Your task to perform on an android device: Show me productivity apps on the Play Store Image 0: 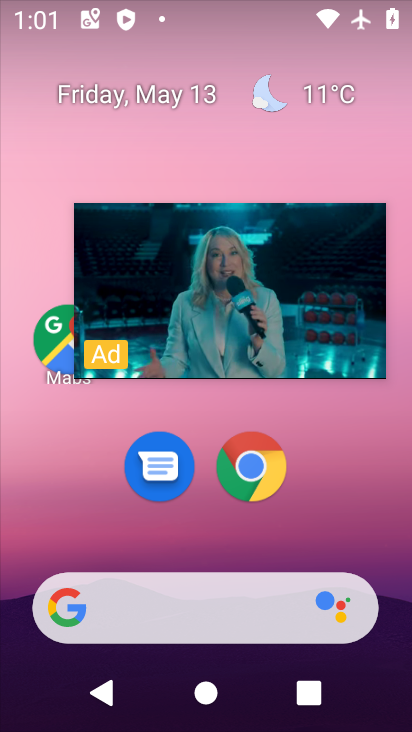
Step 0: drag from (244, 267) to (233, 695)
Your task to perform on an android device: Show me productivity apps on the Play Store Image 1: 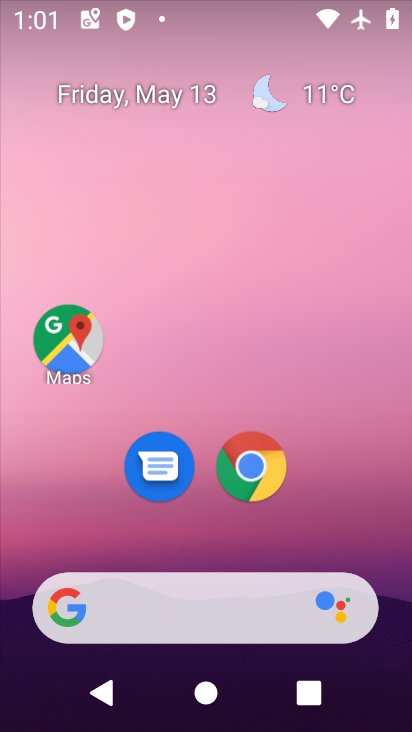
Step 1: drag from (233, 517) to (212, 31)
Your task to perform on an android device: Show me productivity apps on the Play Store Image 2: 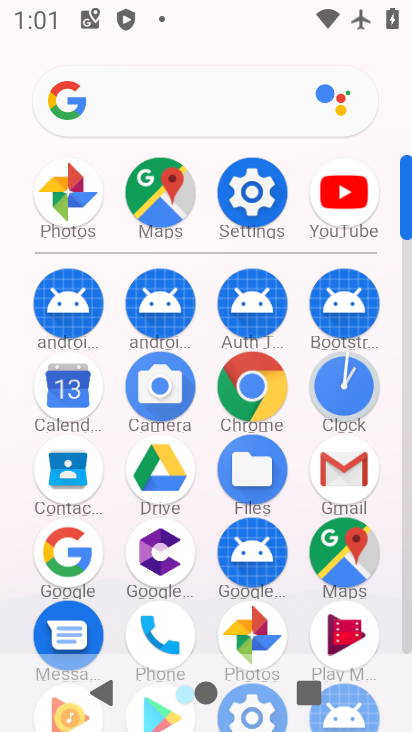
Step 2: drag from (181, 527) to (209, 187)
Your task to perform on an android device: Show me productivity apps on the Play Store Image 3: 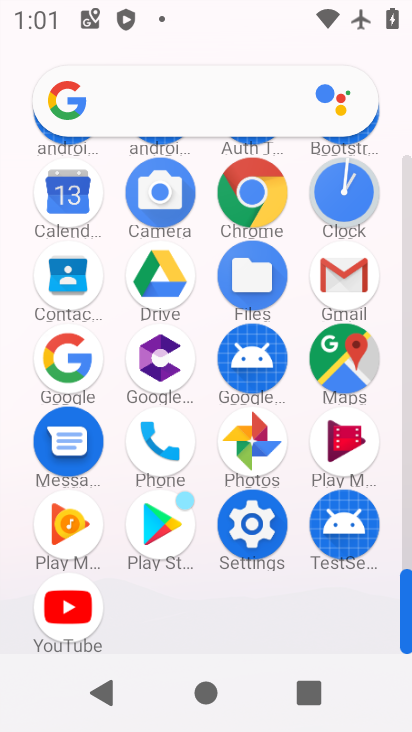
Step 3: click (164, 534)
Your task to perform on an android device: Show me productivity apps on the Play Store Image 4: 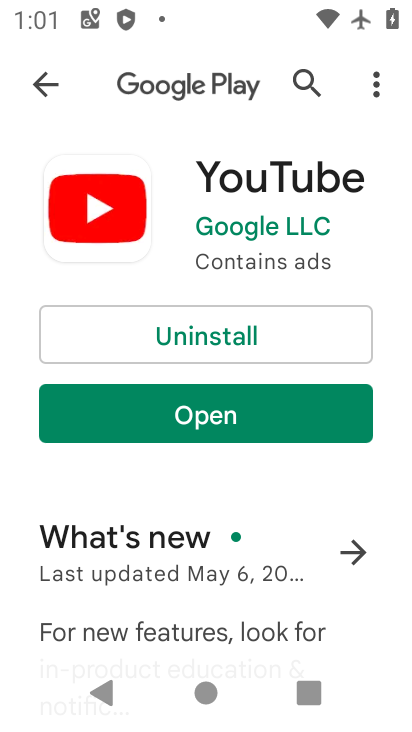
Step 4: click (39, 95)
Your task to perform on an android device: Show me productivity apps on the Play Store Image 5: 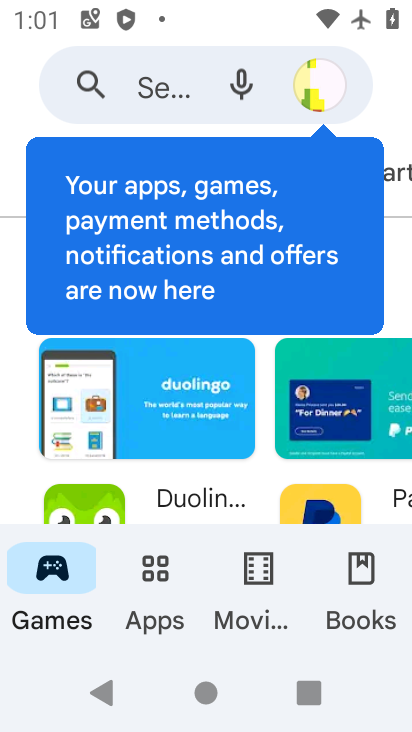
Step 5: click (159, 595)
Your task to perform on an android device: Show me productivity apps on the Play Store Image 6: 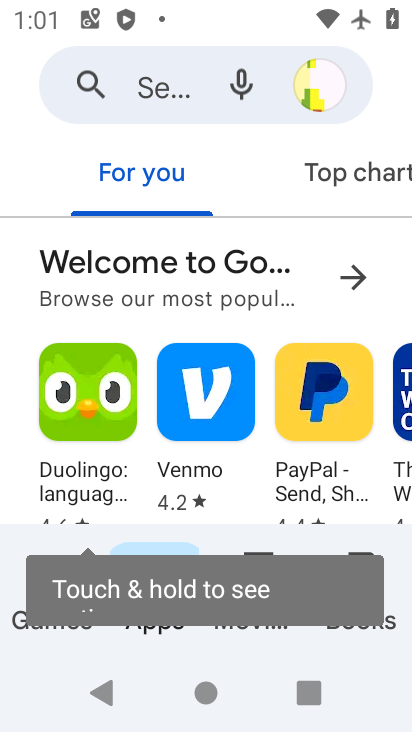
Step 6: drag from (375, 176) to (3, 204)
Your task to perform on an android device: Show me productivity apps on the Play Store Image 7: 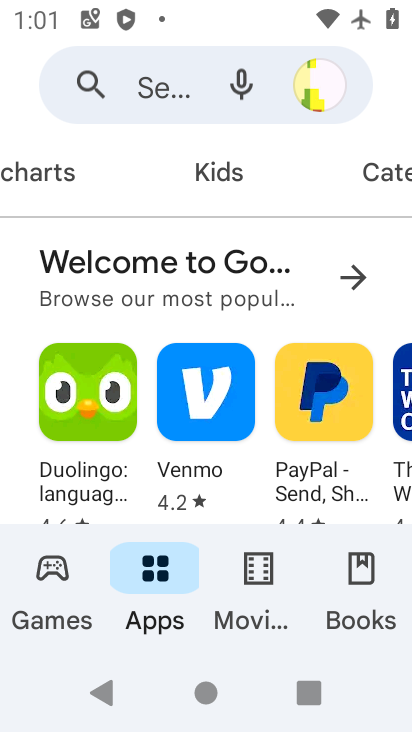
Step 7: click (359, 168)
Your task to perform on an android device: Show me productivity apps on the Play Store Image 8: 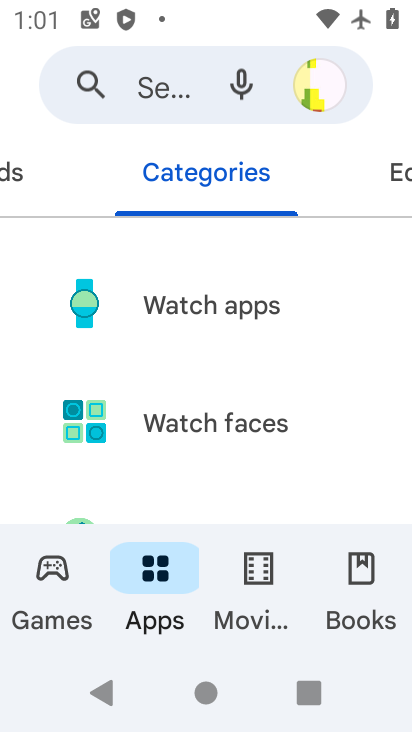
Step 8: drag from (251, 487) to (246, 146)
Your task to perform on an android device: Show me productivity apps on the Play Store Image 9: 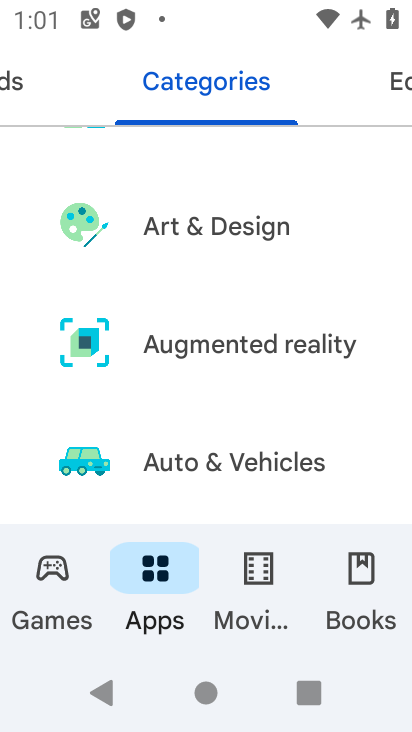
Step 9: drag from (235, 448) to (235, 166)
Your task to perform on an android device: Show me productivity apps on the Play Store Image 10: 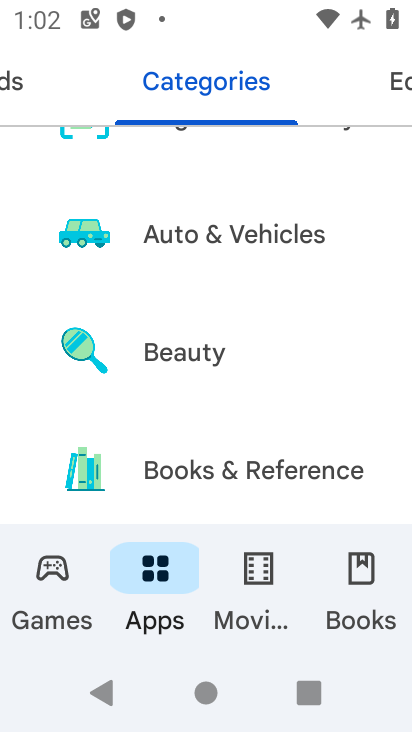
Step 10: drag from (241, 465) to (230, 277)
Your task to perform on an android device: Show me productivity apps on the Play Store Image 11: 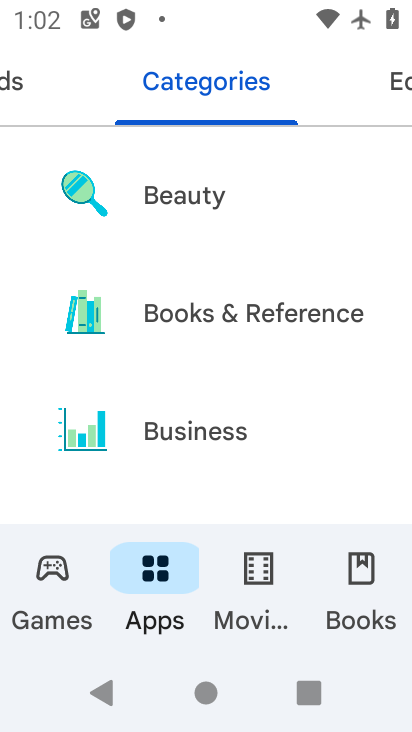
Step 11: drag from (211, 457) to (227, 195)
Your task to perform on an android device: Show me productivity apps on the Play Store Image 12: 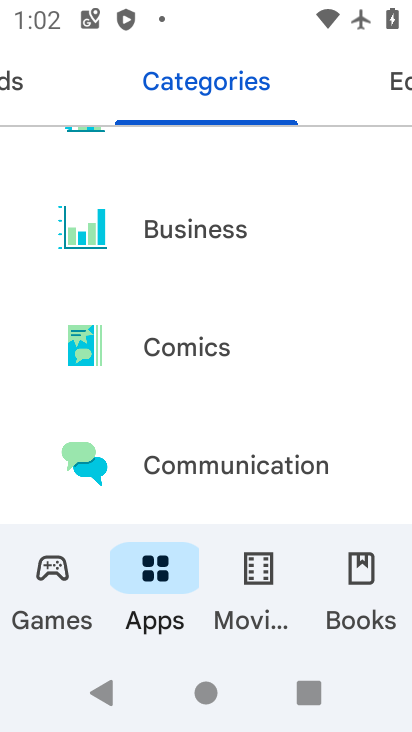
Step 12: drag from (238, 451) to (233, 310)
Your task to perform on an android device: Show me productivity apps on the Play Store Image 13: 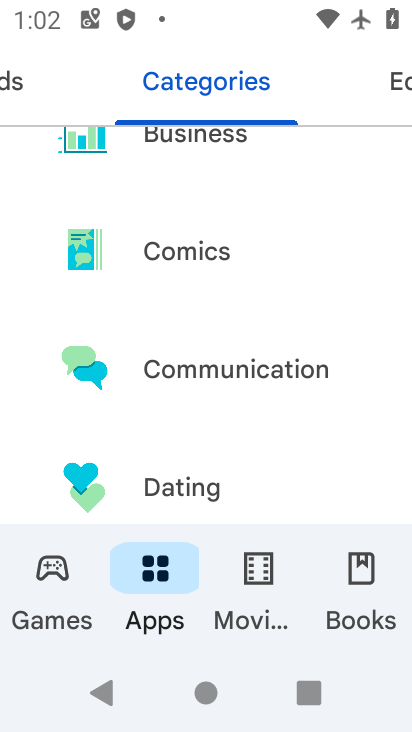
Step 13: drag from (250, 433) to (236, 159)
Your task to perform on an android device: Show me productivity apps on the Play Store Image 14: 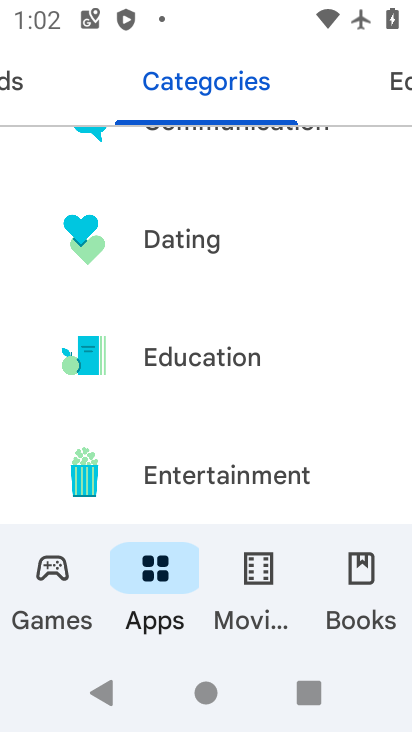
Step 14: drag from (279, 441) to (229, 238)
Your task to perform on an android device: Show me productivity apps on the Play Store Image 15: 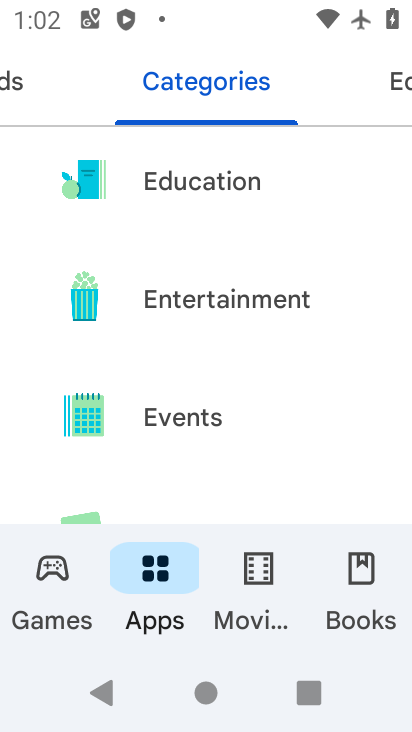
Step 15: drag from (262, 483) to (280, 302)
Your task to perform on an android device: Show me productivity apps on the Play Store Image 16: 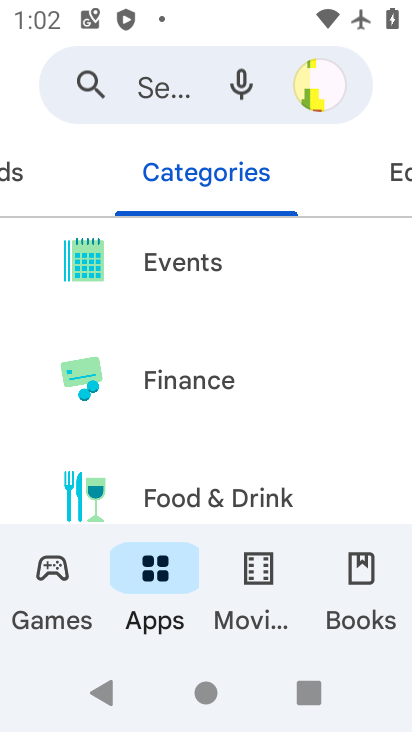
Step 16: drag from (327, 484) to (317, 185)
Your task to perform on an android device: Show me productivity apps on the Play Store Image 17: 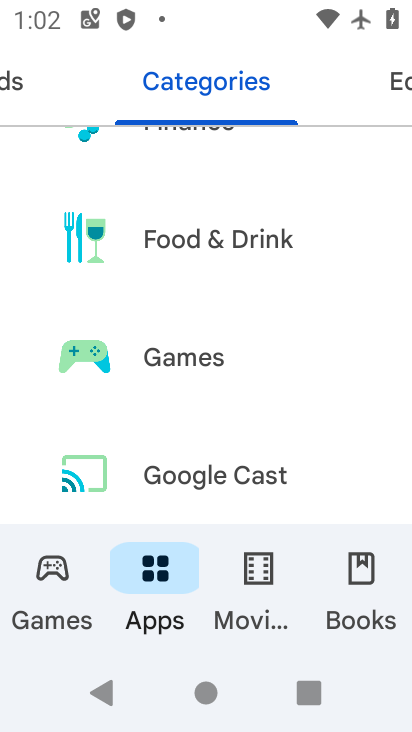
Step 17: drag from (310, 463) to (298, 135)
Your task to perform on an android device: Show me productivity apps on the Play Store Image 18: 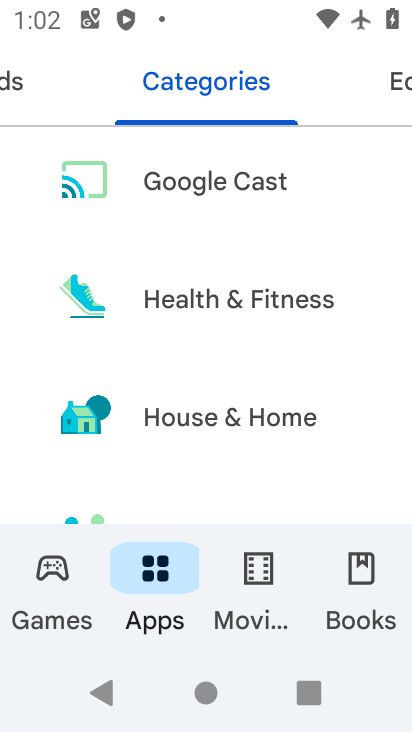
Step 18: drag from (256, 451) to (261, 152)
Your task to perform on an android device: Show me productivity apps on the Play Store Image 19: 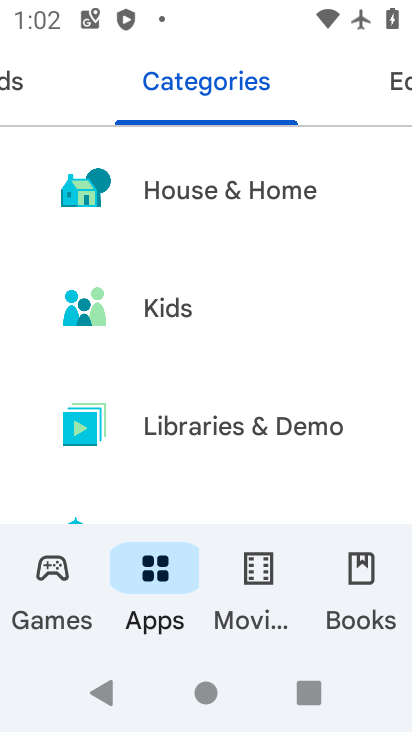
Step 19: drag from (283, 467) to (347, 51)
Your task to perform on an android device: Show me productivity apps on the Play Store Image 20: 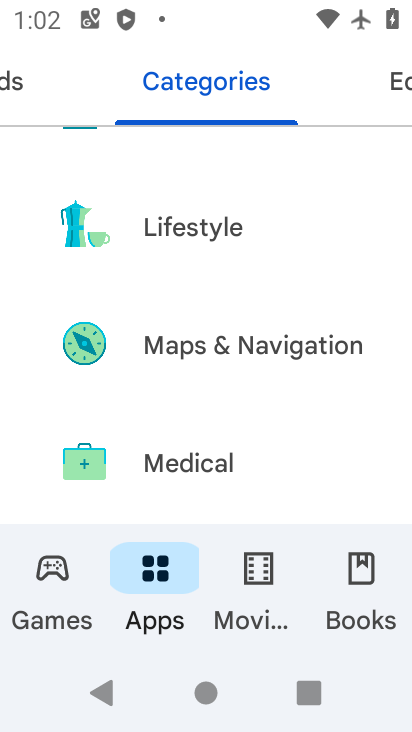
Step 20: drag from (246, 491) to (251, 160)
Your task to perform on an android device: Show me productivity apps on the Play Store Image 21: 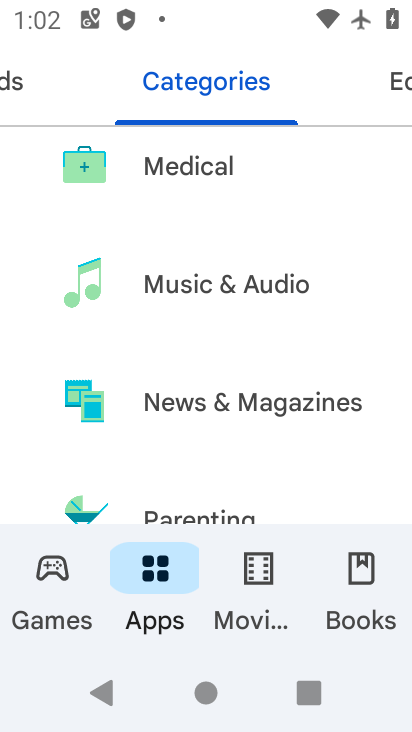
Step 21: drag from (274, 451) to (273, 154)
Your task to perform on an android device: Show me productivity apps on the Play Store Image 22: 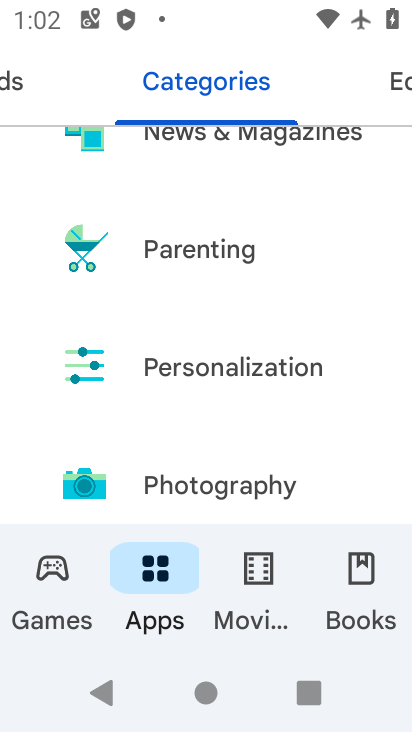
Step 22: drag from (283, 435) to (290, 234)
Your task to perform on an android device: Show me productivity apps on the Play Store Image 23: 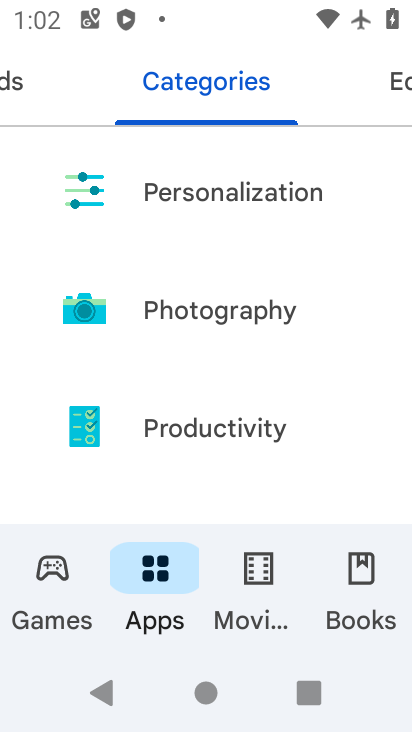
Step 23: click (261, 428)
Your task to perform on an android device: Show me productivity apps on the Play Store Image 24: 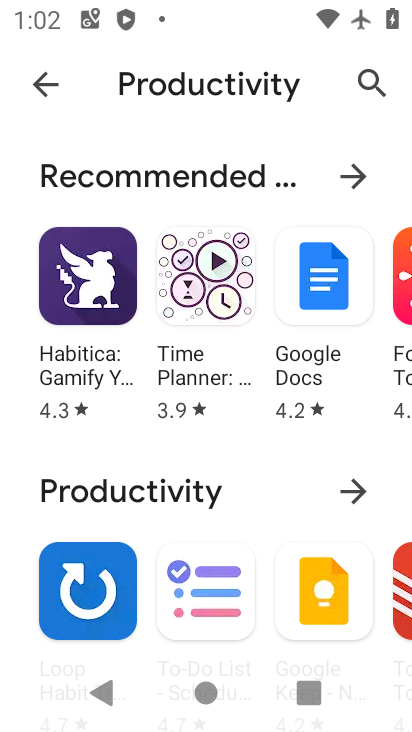
Step 24: task complete